Your task to perform on an android device: Open calendar and show me the first week of next month Image 0: 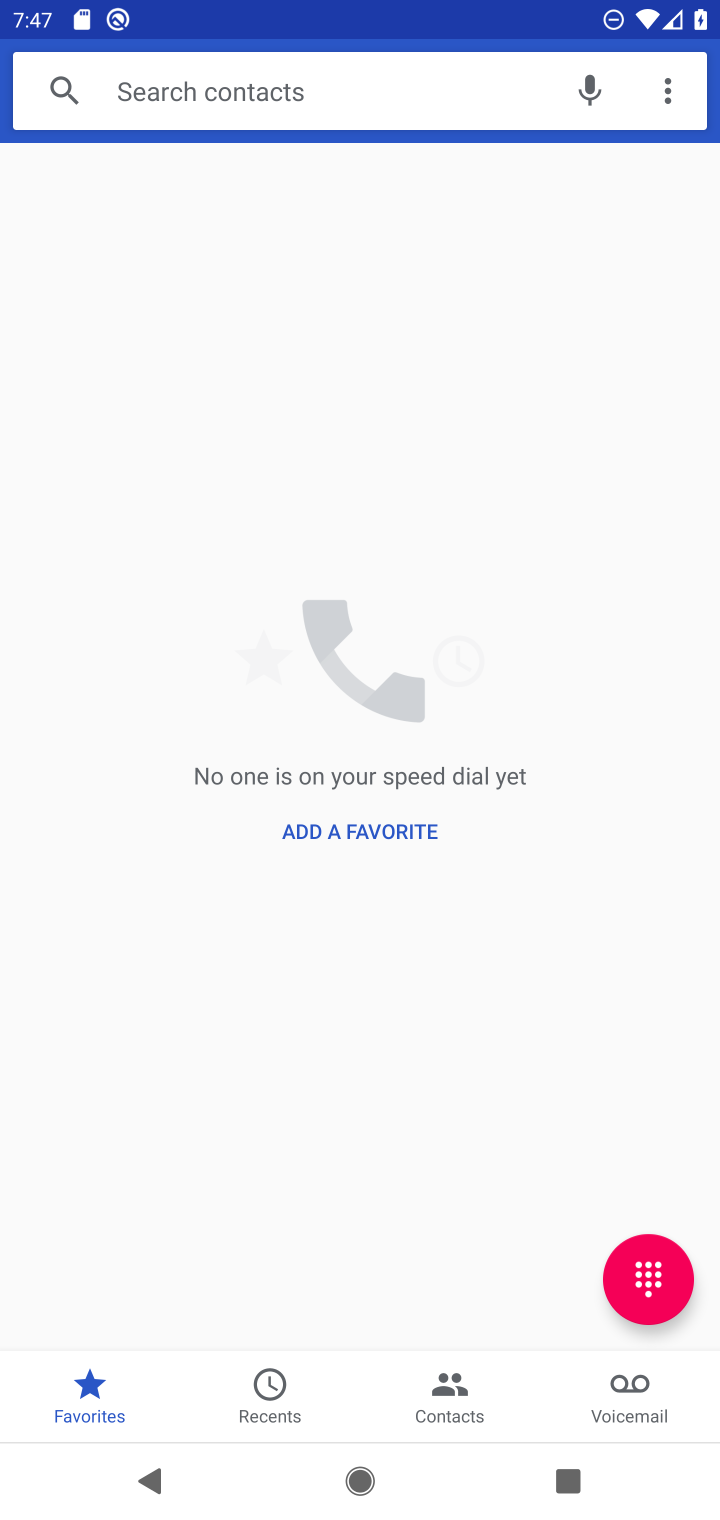
Step 0: press home button
Your task to perform on an android device: Open calendar and show me the first week of next month Image 1: 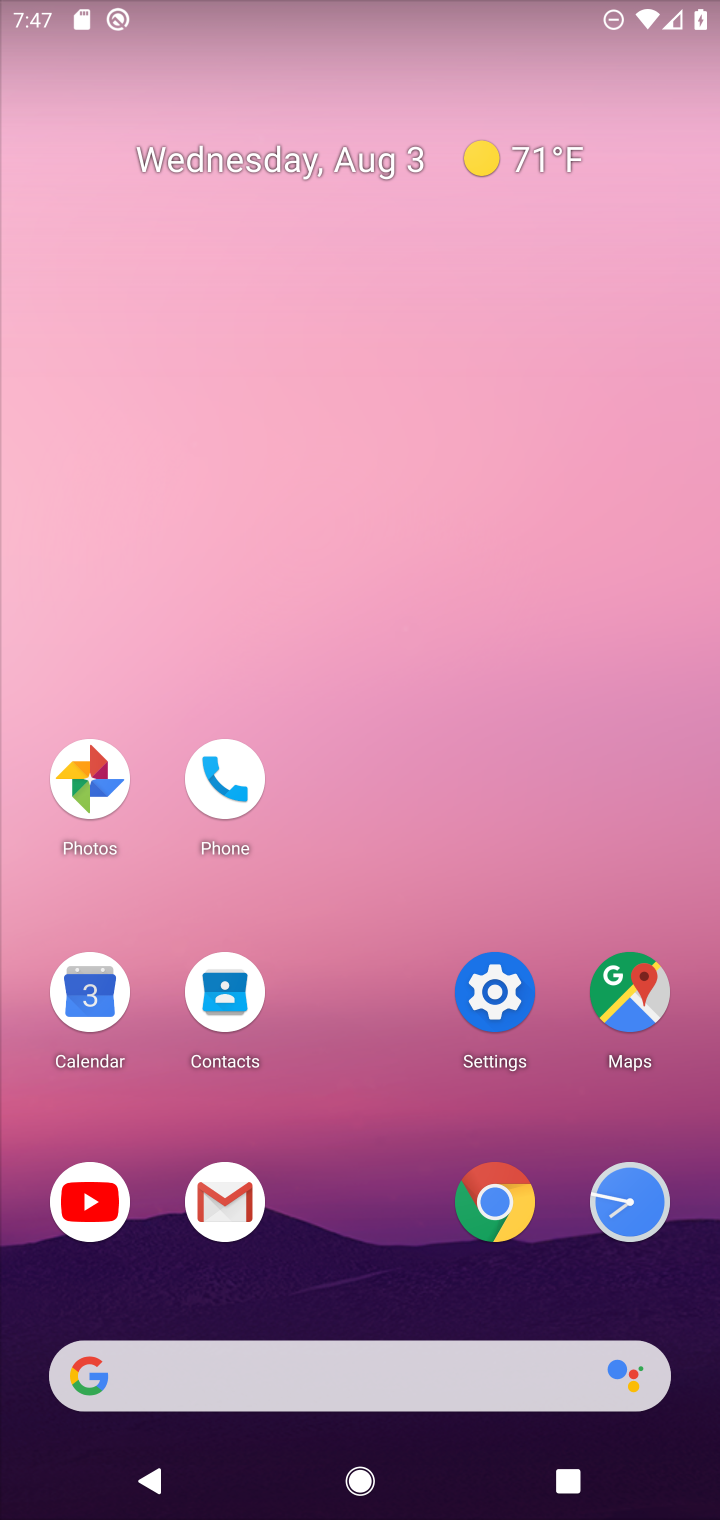
Step 1: click (91, 1001)
Your task to perform on an android device: Open calendar and show me the first week of next month Image 2: 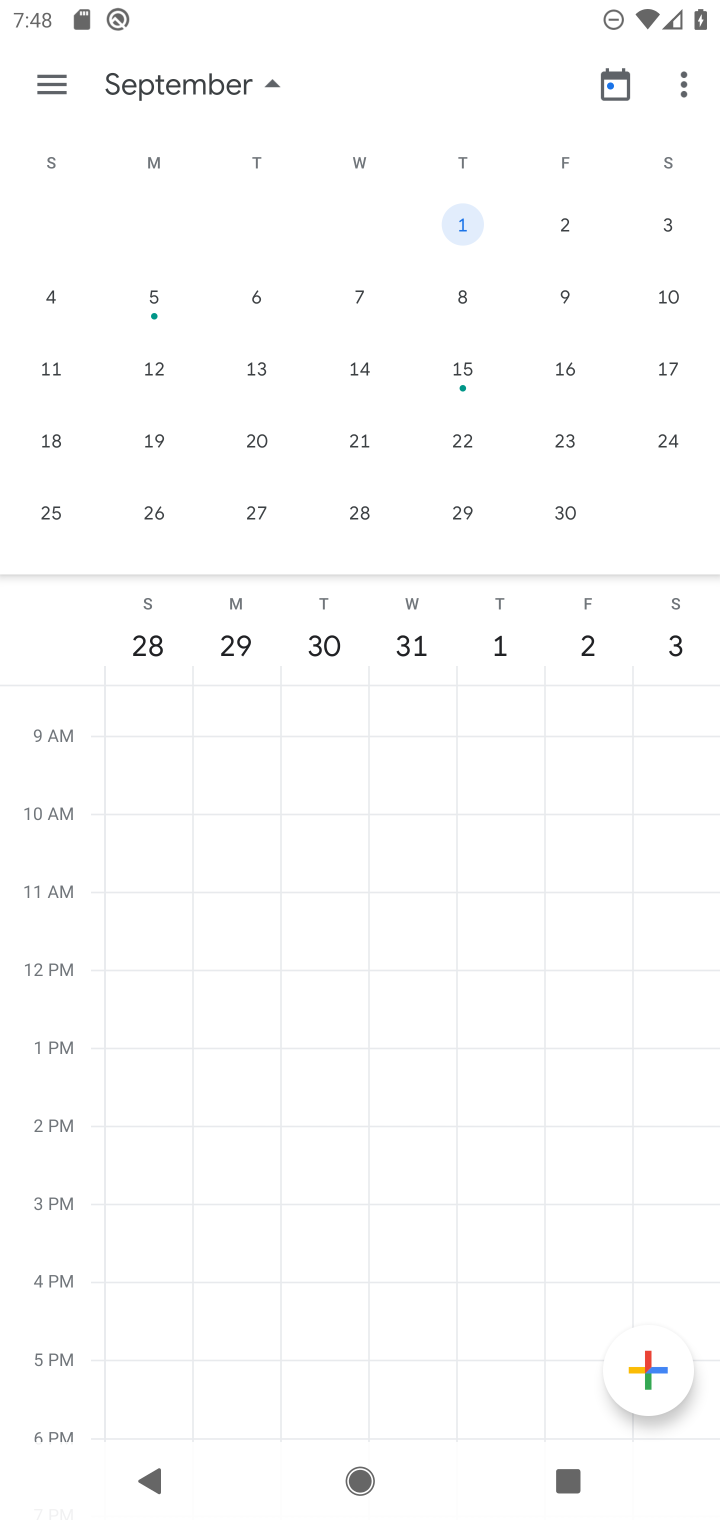
Step 2: task complete